Your task to perform on an android device: Open Android settings Image 0: 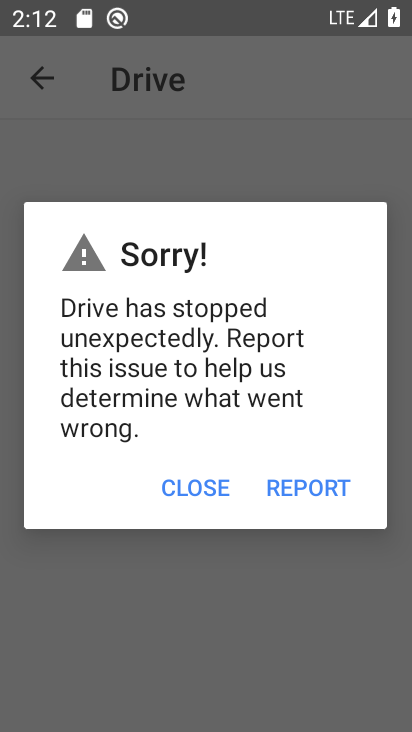
Step 0: click (197, 502)
Your task to perform on an android device: Open Android settings Image 1: 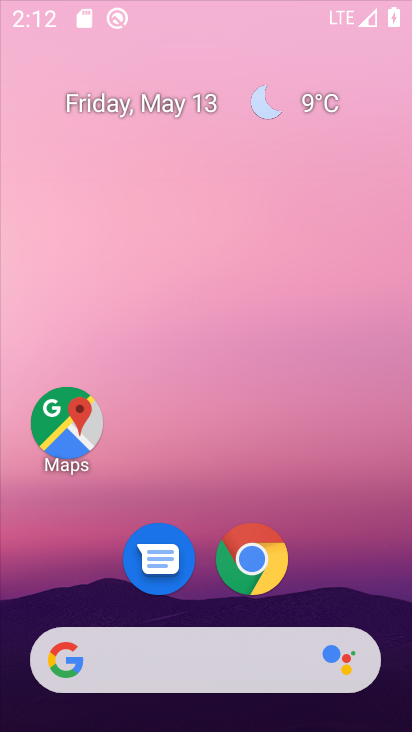
Step 1: click (189, 491)
Your task to perform on an android device: Open Android settings Image 2: 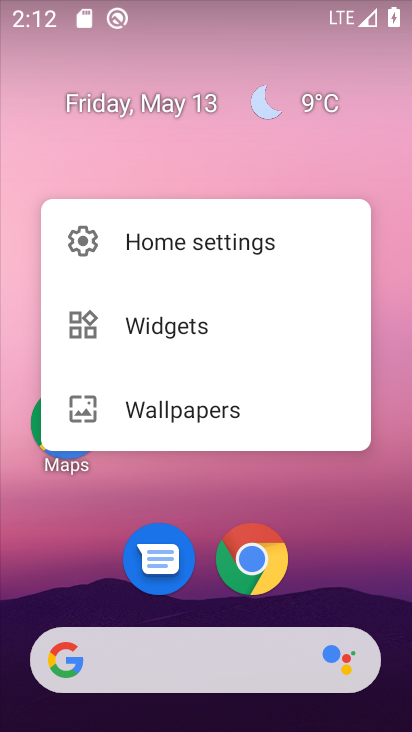
Step 2: press back button
Your task to perform on an android device: Open Android settings Image 3: 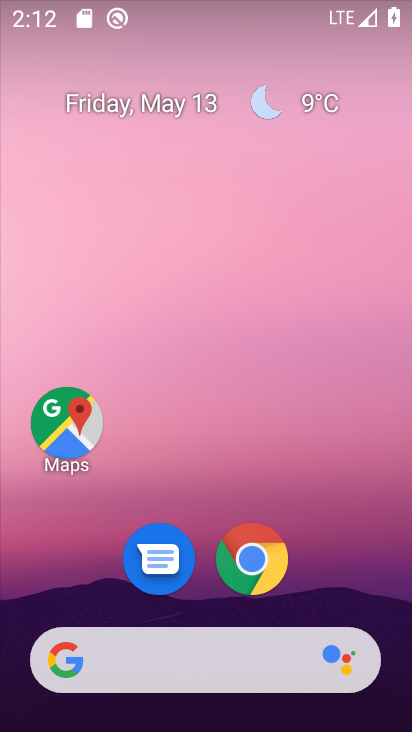
Step 3: click (369, 222)
Your task to perform on an android device: Open Android settings Image 4: 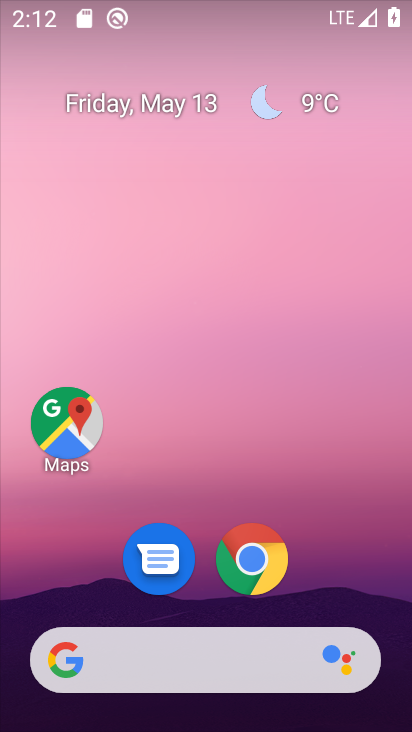
Step 4: drag from (391, 596) to (369, 411)
Your task to perform on an android device: Open Android settings Image 5: 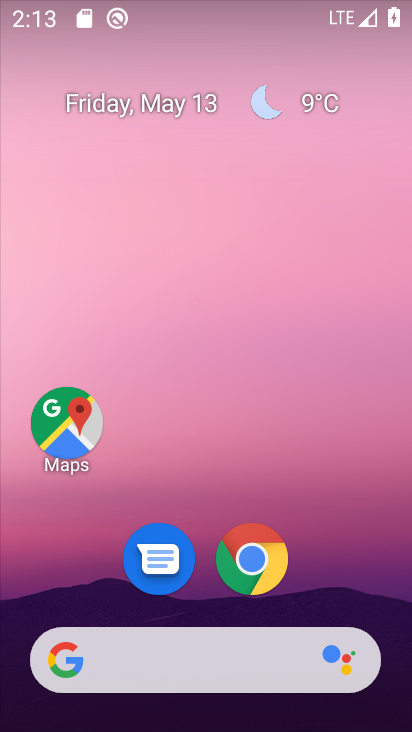
Step 5: drag from (384, 573) to (357, 370)
Your task to perform on an android device: Open Android settings Image 6: 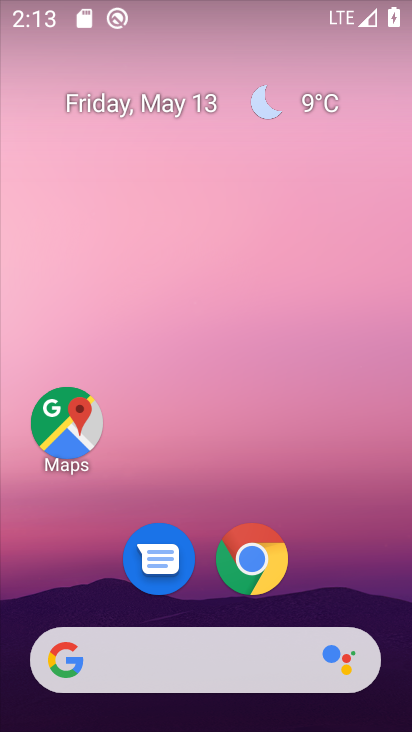
Step 6: drag from (388, 613) to (359, 317)
Your task to perform on an android device: Open Android settings Image 7: 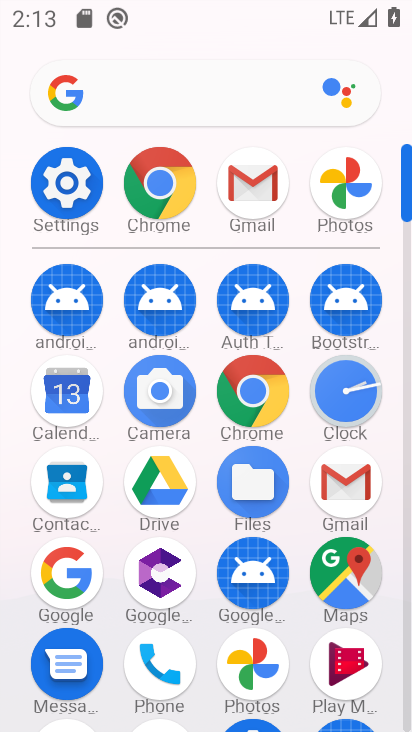
Step 7: click (70, 194)
Your task to perform on an android device: Open Android settings Image 8: 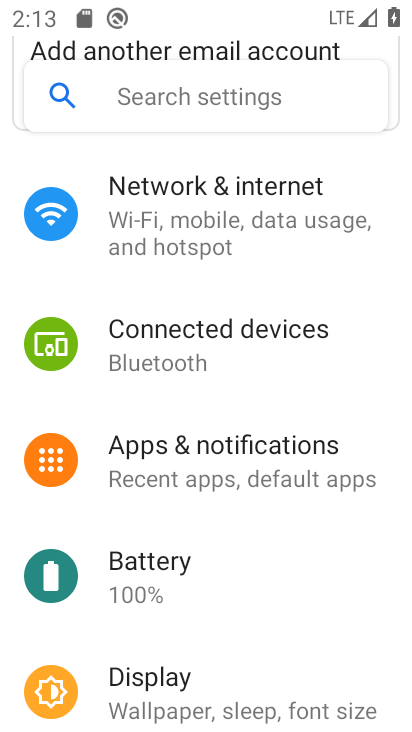
Step 8: drag from (274, 679) to (263, 557)
Your task to perform on an android device: Open Android settings Image 9: 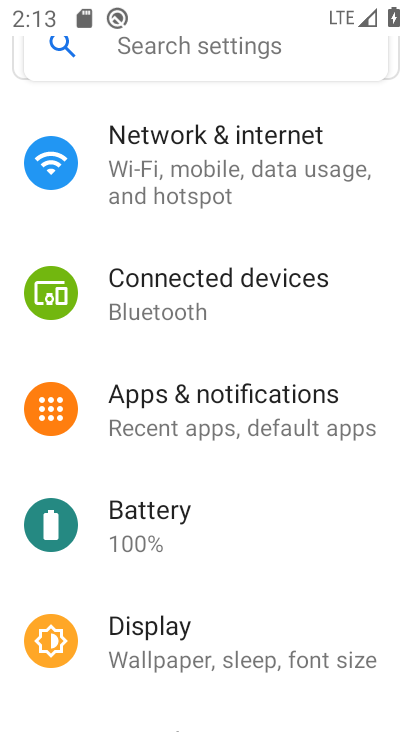
Step 9: drag from (320, 687) to (306, 514)
Your task to perform on an android device: Open Android settings Image 10: 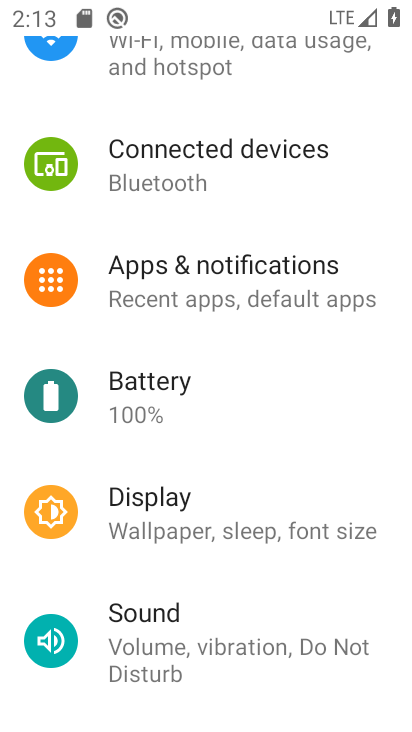
Step 10: drag from (302, 642) to (310, 465)
Your task to perform on an android device: Open Android settings Image 11: 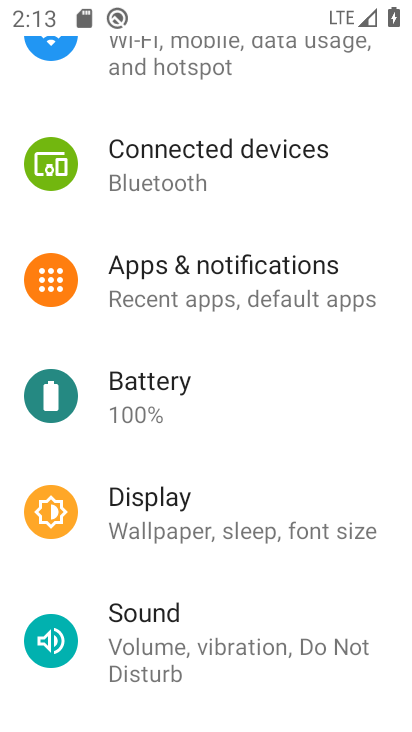
Step 11: drag from (305, 638) to (306, 385)
Your task to perform on an android device: Open Android settings Image 12: 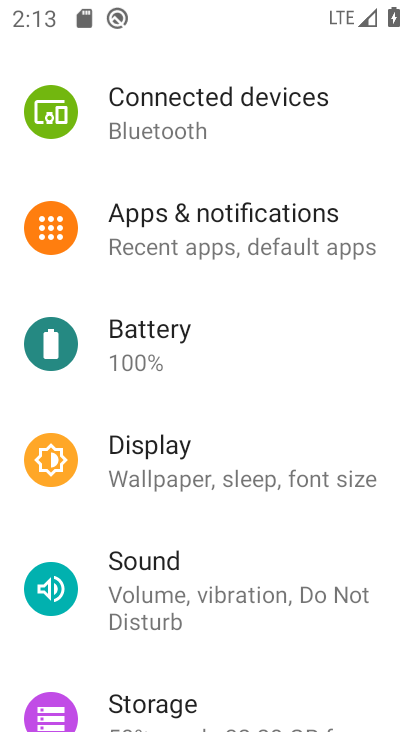
Step 12: drag from (301, 680) to (309, 448)
Your task to perform on an android device: Open Android settings Image 13: 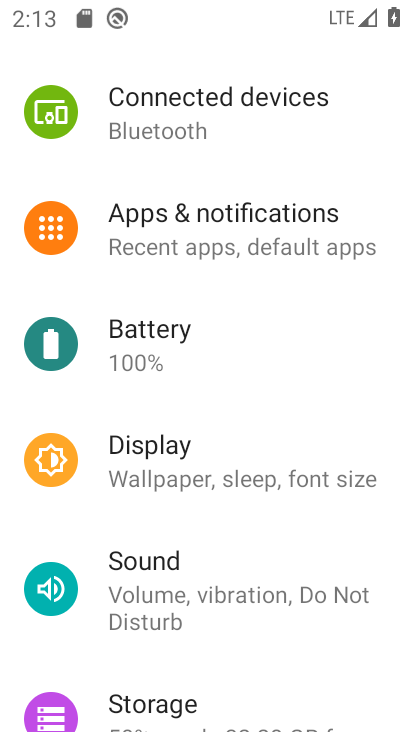
Step 13: drag from (331, 614) to (334, 389)
Your task to perform on an android device: Open Android settings Image 14: 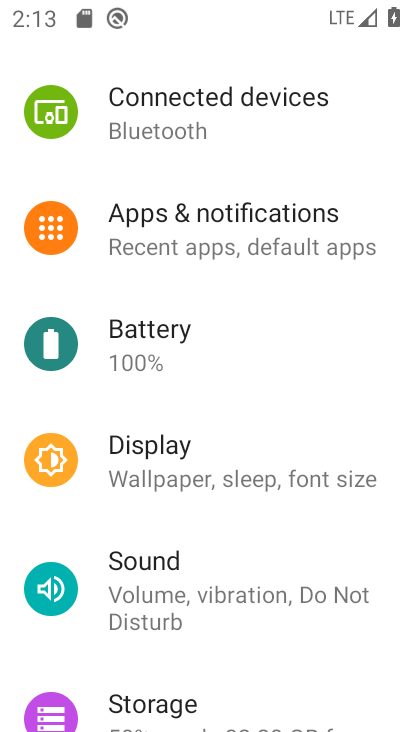
Step 14: drag from (377, 674) to (364, 406)
Your task to perform on an android device: Open Android settings Image 15: 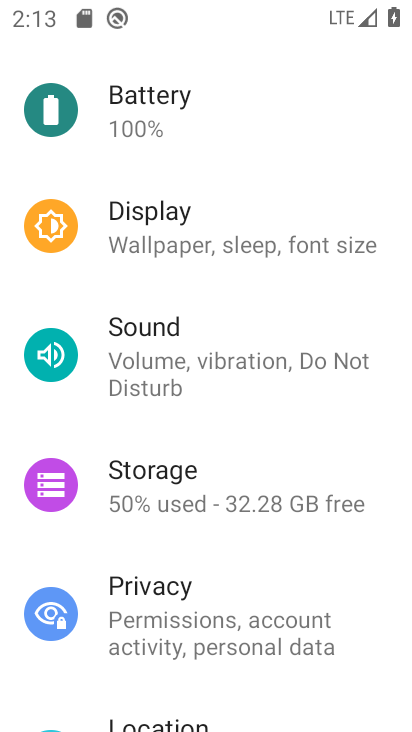
Step 15: drag from (373, 673) to (364, 428)
Your task to perform on an android device: Open Android settings Image 16: 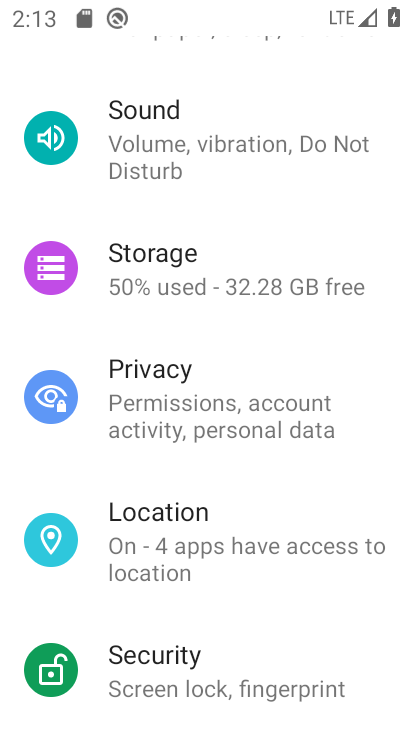
Step 16: drag from (395, 628) to (394, 424)
Your task to perform on an android device: Open Android settings Image 17: 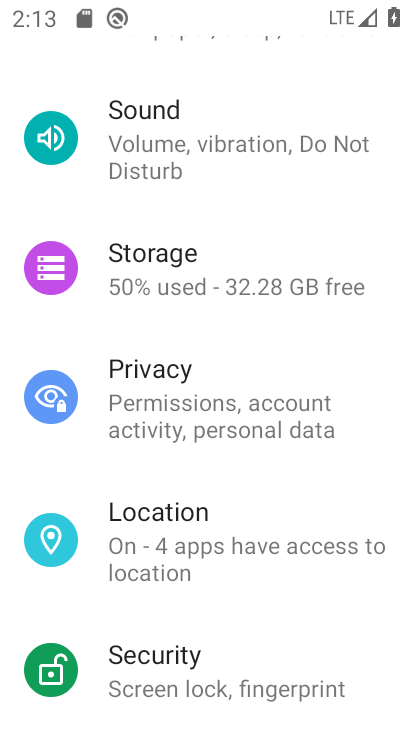
Step 17: drag from (386, 688) to (371, 388)
Your task to perform on an android device: Open Android settings Image 18: 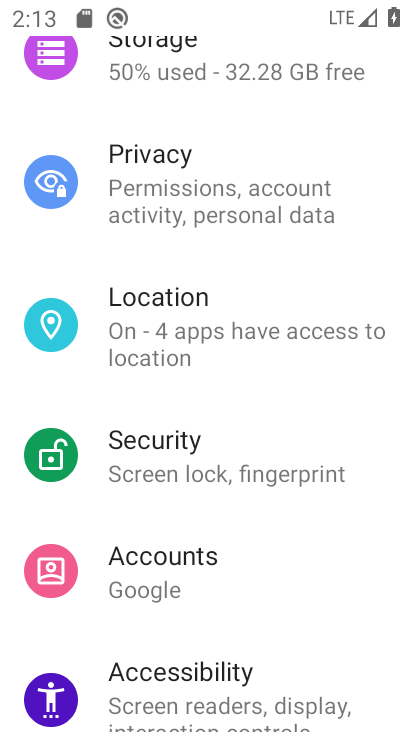
Step 18: drag from (371, 649) to (376, 465)
Your task to perform on an android device: Open Android settings Image 19: 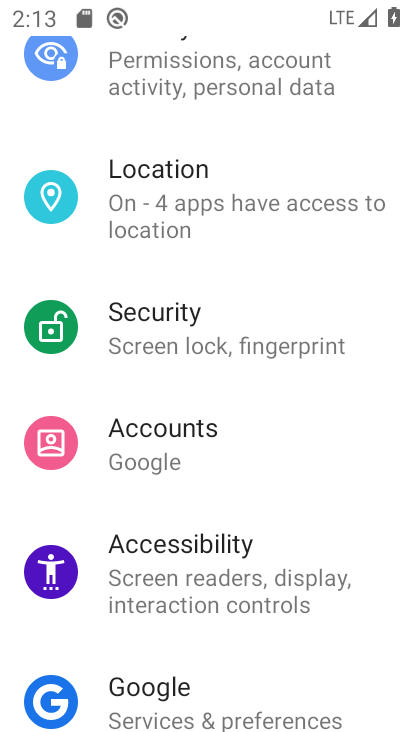
Step 19: drag from (386, 702) to (386, 608)
Your task to perform on an android device: Open Android settings Image 20: 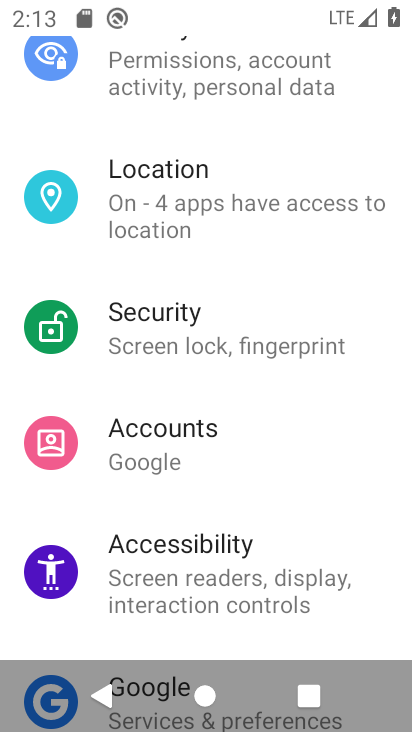
Step 20: drag from (368, 600) to (371, 507)
Your task to perform on an android device: Open Android settings Image 21: 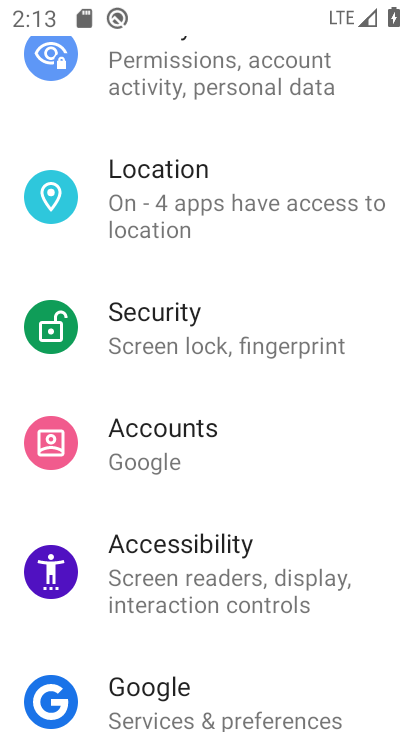
Step 21: drag from (391, 668) to (389, 543)
Your task to perform on an android device: Open Android settings Image 22: 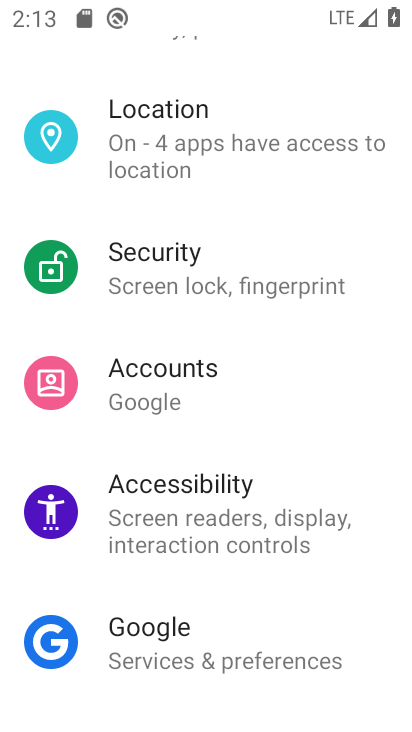
Step 22: drag from (391, 659) to (390, 558)
Your task to perform on an android device: Open Android settings Image 23: 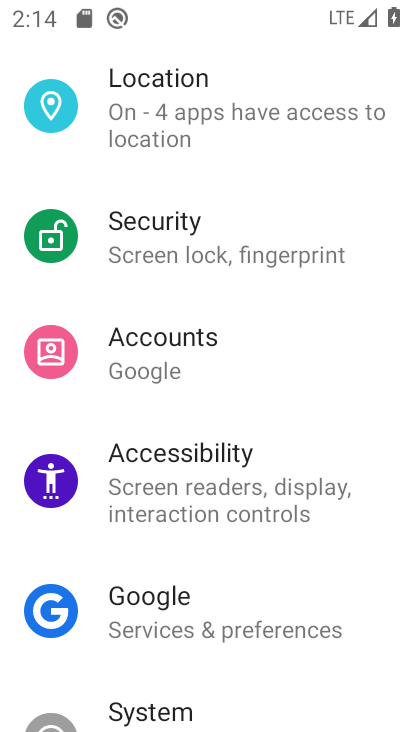
Step 23: drag from (379, 685) to (377, 508)
Your task to perform on an android device: Open Android settings Image 24: 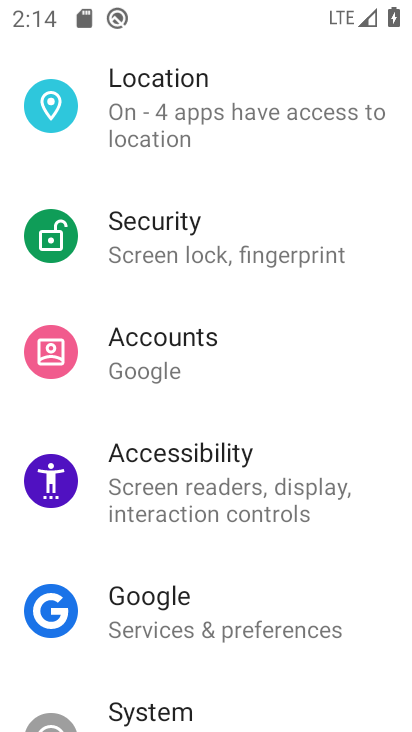
Step 24: drag from (387, 695) to (404, 491)
Your task to perform on an android device: Open Android settings Image 25: 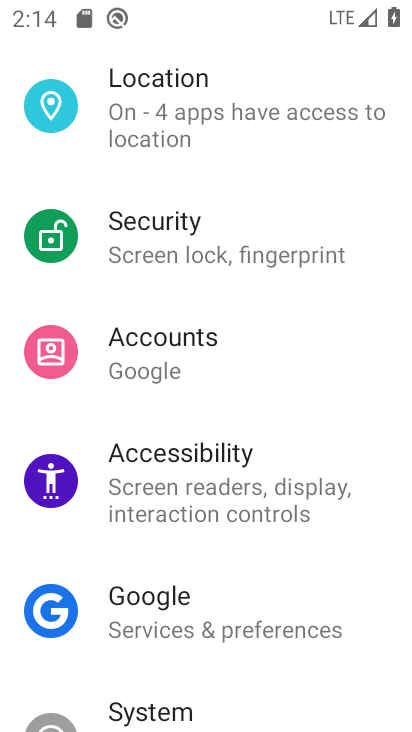
Step 25: drag from (366, 531) to (366, 488)
Your task to perform on an android device: Open Android settings Image 26: 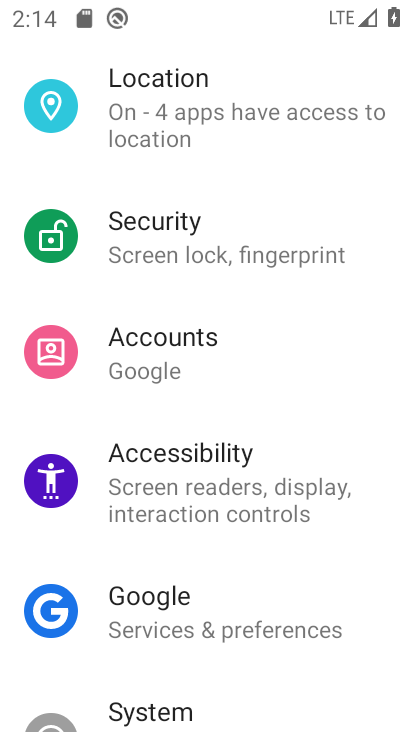
Step 26: drag from (369, 638) to (371, 373)
Your task to perform on an android device: Open Android settings Image 27: 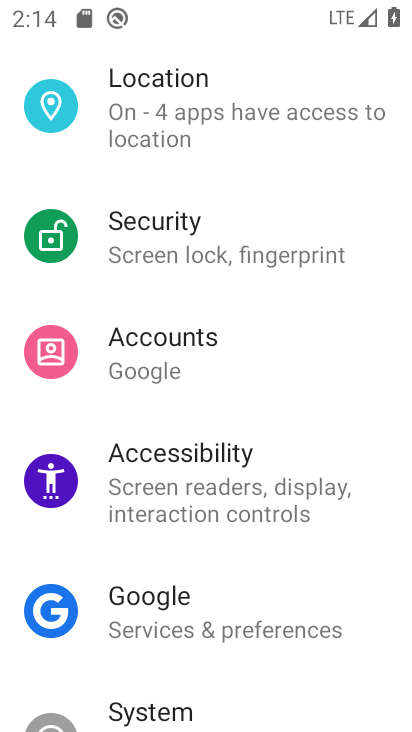
Step 27: click (381, 436)
Your task to perform on an android device: Open Android settings Image 28: 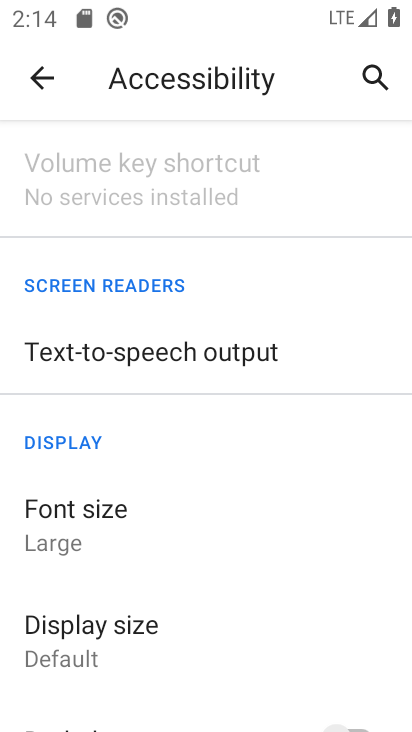
Step 28: click (37, 74)
Your task to perform on an android device: Open Android settings Image 29: 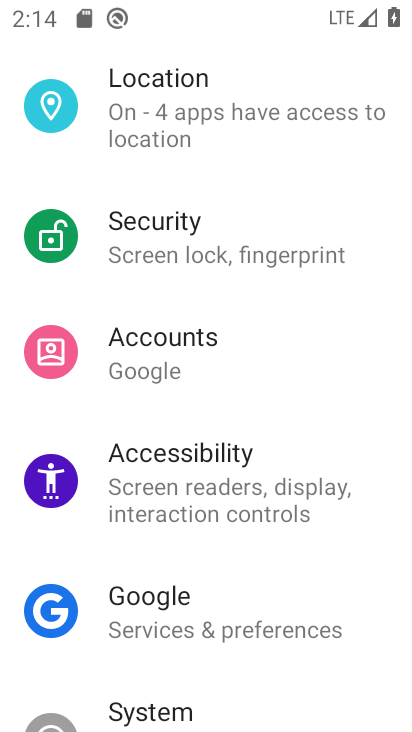
Step 29: drag from (383, 692) to (373, 484)
Your task to perform on an android device: Open Android settings Image 30: 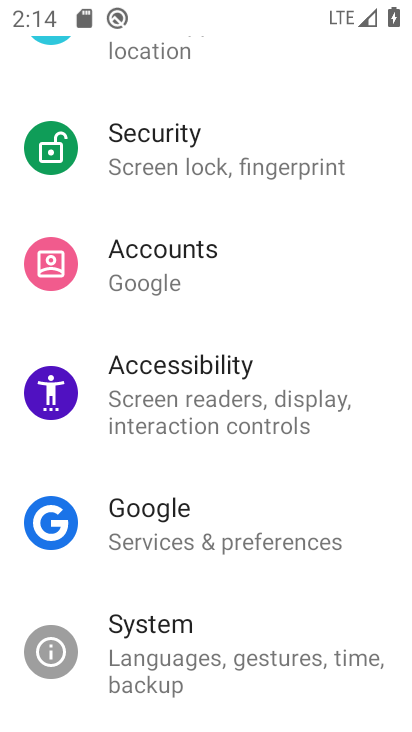
Step 30: drag from (381, 699) to (354, 499)
Your task to perform on an android device: Open Android settings Image 31: 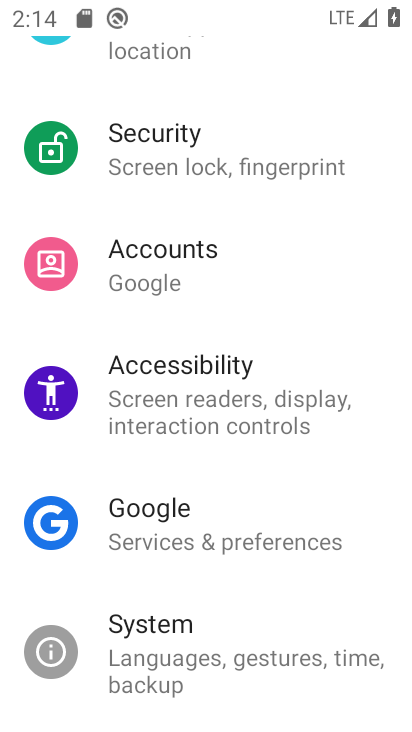
Step 31: drag from (380, 628) to (378, 412)
Your task to perform on an android device: Open Android settings Image 32: 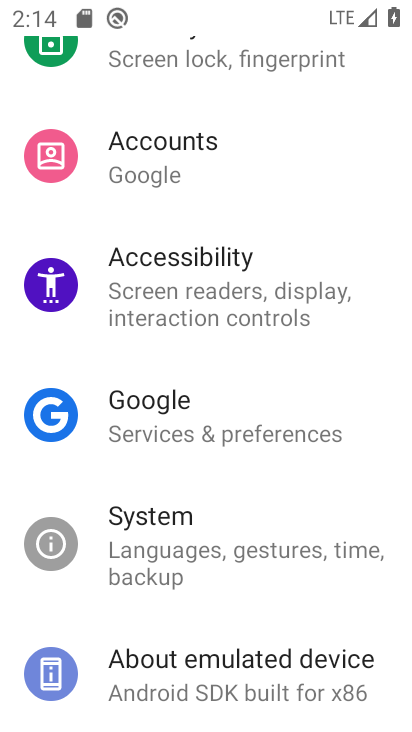
Step 32: click (197, 684)
Your task to perform on an android device: Open Android settings Image 33: 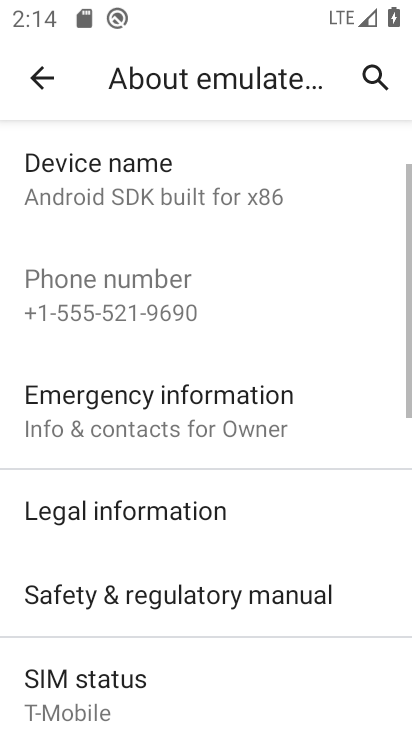
Step 33: task complete